Your task to perform on an android device: Show me the alarms in the clock app Image 0: 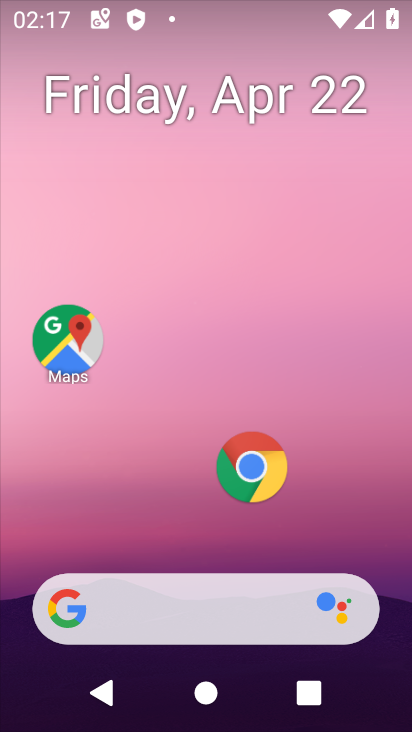
Step 0: drag from (172, 478) to (194, 121)
Your task to perform on an android device: Show me the alarms in the clock app Image 1: 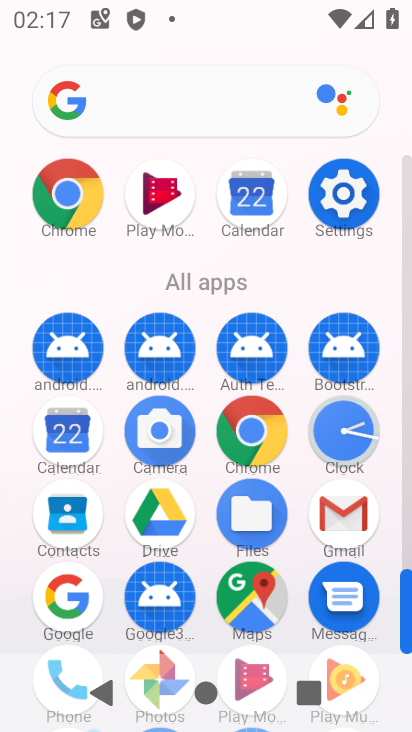
Step 1: click (348, 435)
Your task to perform on an android device: Show me the alarms in the clock app Image 2: 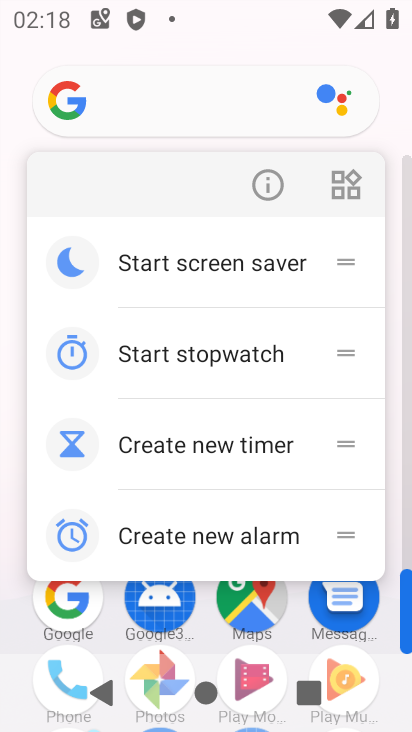
Step 2: click (268, 193)
Your task to perform on an android device: Show me the alarms in the clock app Image 3: 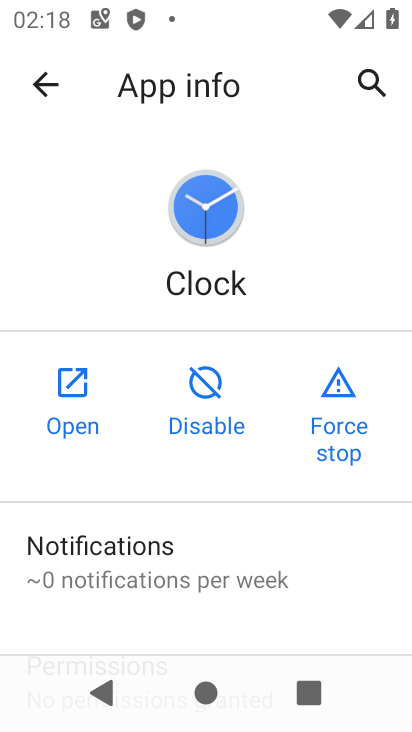
Step 3: click (78, 412)
Your task to perform on an android device: Show me the alarms in the clock app Image 4: 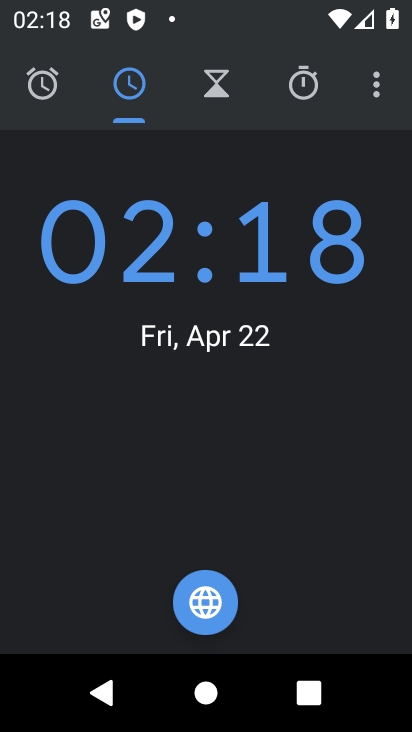
Step 4: click (70, 93)
Your task to perform on an android device: Show me the alarms in the clock app Image 5: 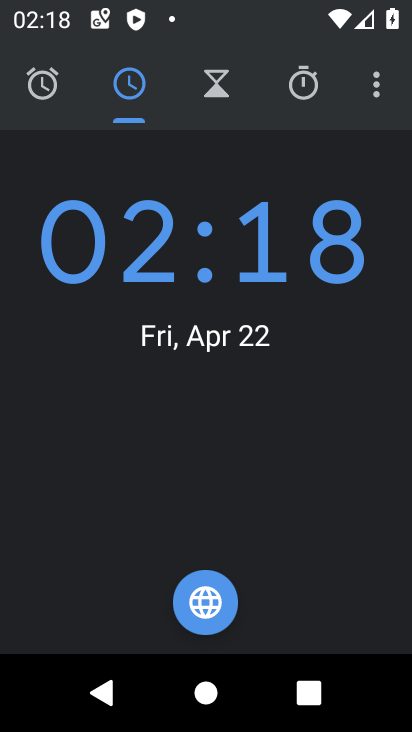
Step 5: task complete